Your task to perform on an android device: Go to eBay Image 0: 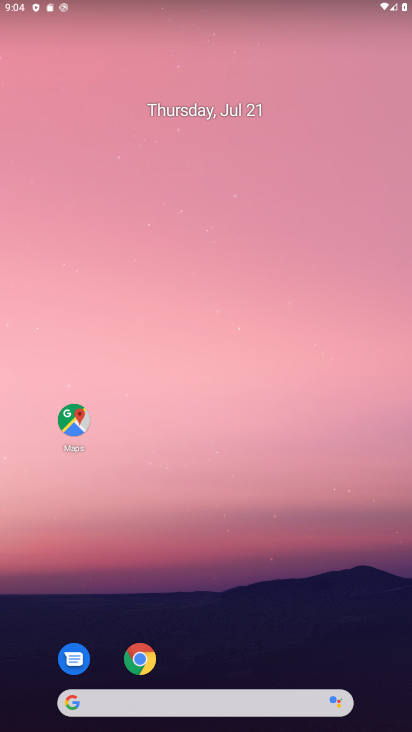
Step 0: drag from (240, 675) to (149, 5)
Your task to perform on an android device: Go to eBay Image 1: 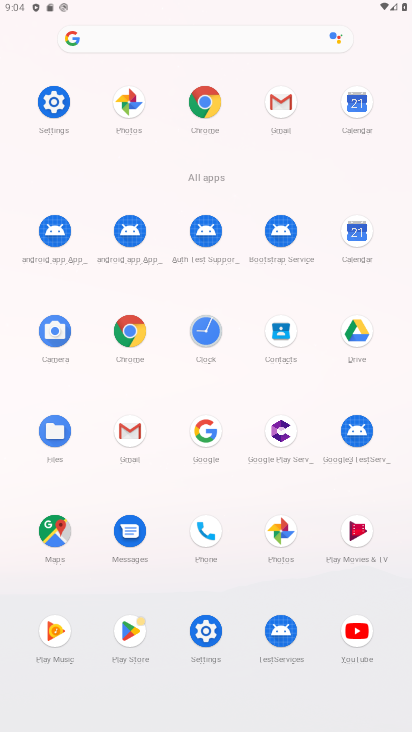
Step 1: click (129, 329)
Your task to perform on an android device: Go to eBay Image 2: 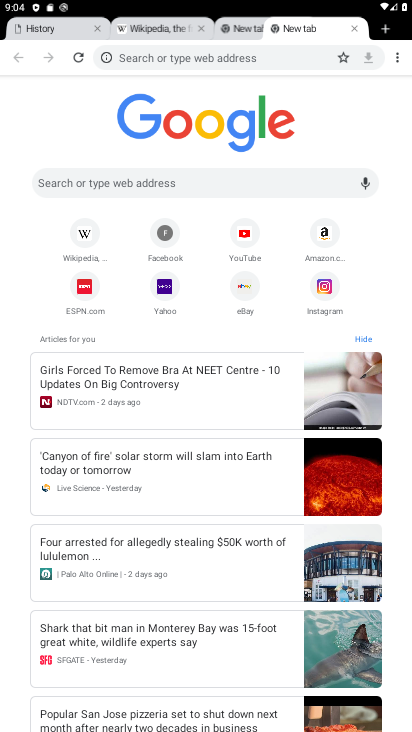
Step 2: click (251, 291)
Your task to perform on an android device: Go to eBay Image 3: 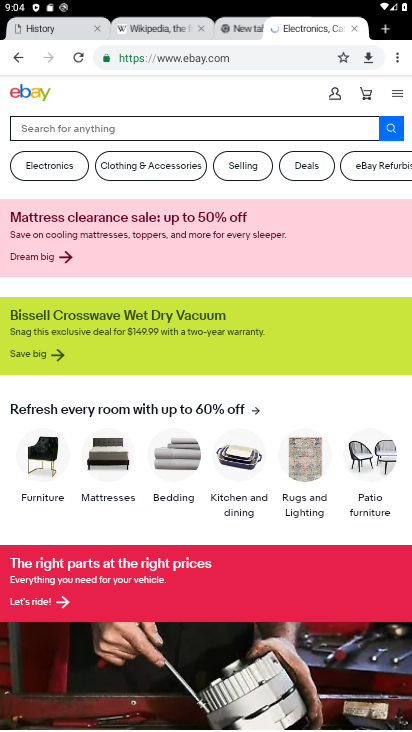
Step 3: task complete